Your task to perform on an android device: toggle pop-ups in chrome Image 0: 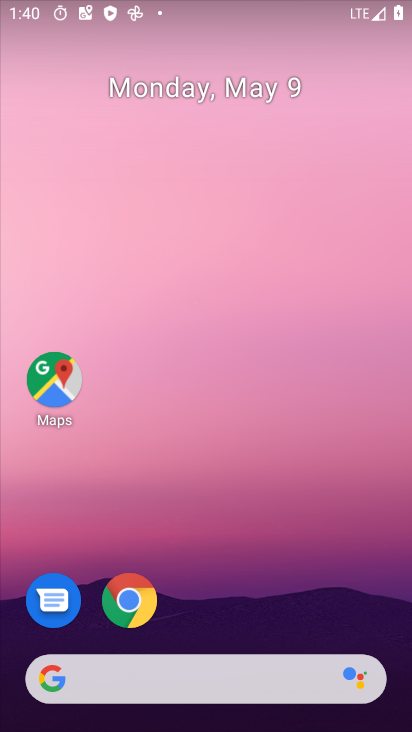
Step 0: drag from (243, 617) to (280, 226)
Your task to perform on an android device: toggle pop-ups in chrome Image 1: 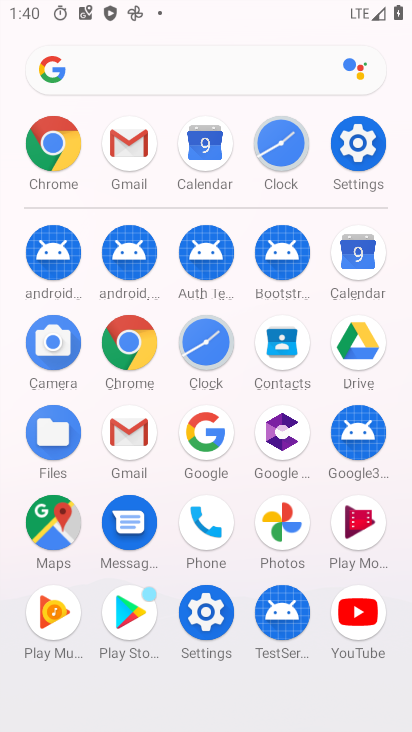
Step 1: click (149, 349)
Your task to perform on an android device: toggle pop-ups in chrome Image 2: 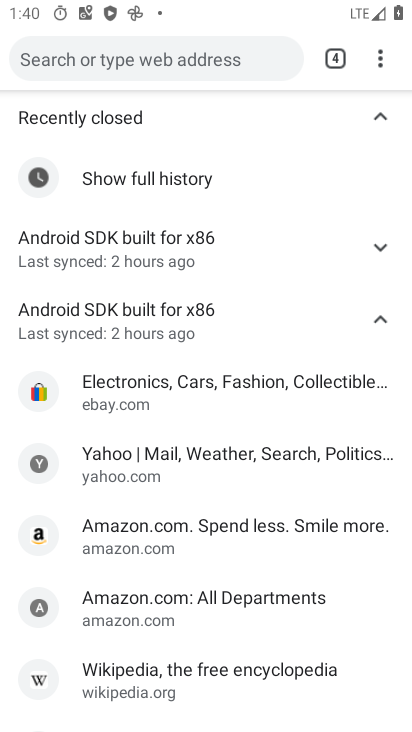
Step 2: click (385, 72)
Your task to perform on an android device: toggle pop-ups in chrome Image 3: 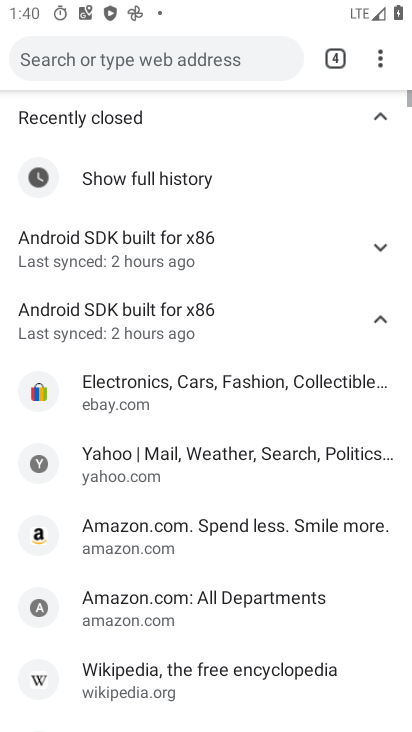
Step 3: click (376, 73)
Your task to perform on an android device: toggle pop-ups in chrome Image 4: 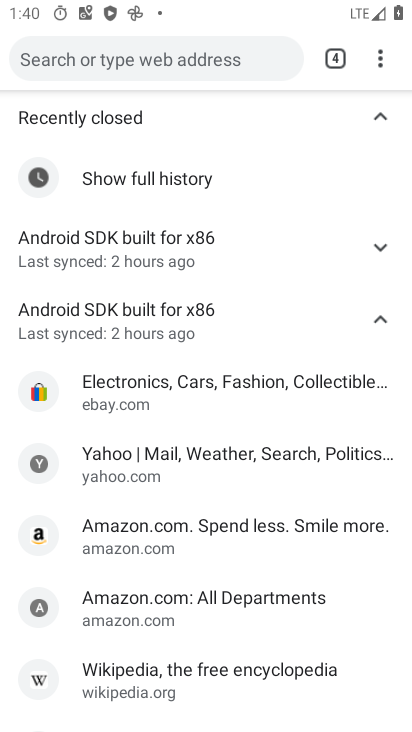
Step 4: click (378, 69)
Your task to perform on an android device: toggle pop-ups in chrome Image 5: 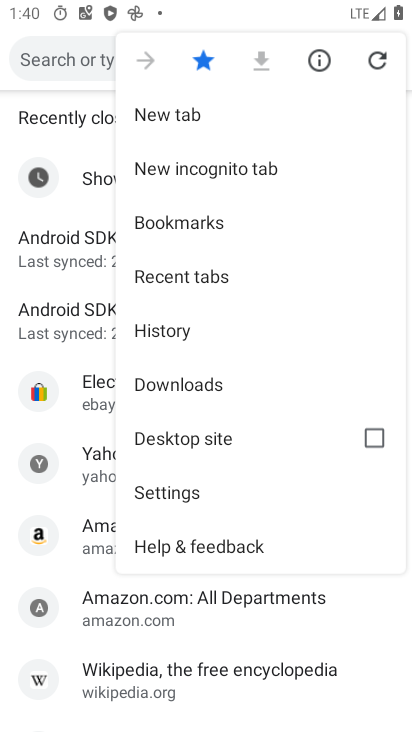
Step 5: click (239, 482)
Your task to perform on an android device: toggle pop-ups in chrome Image 6: 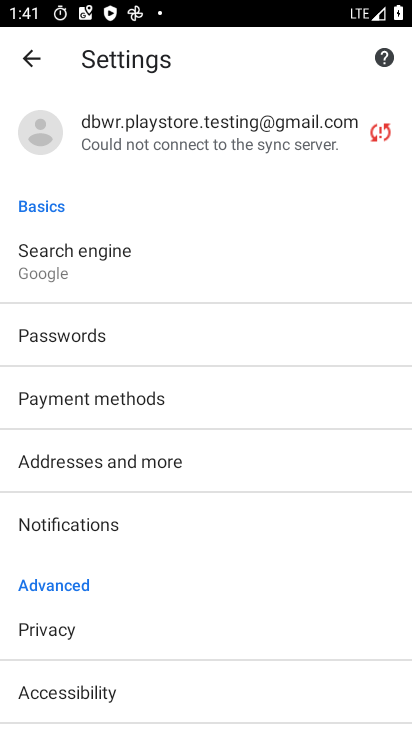
Step 6: drag from (181, 646) to (223, 405)
Your task to perform on an android device: toggle pop-ups in chrome Image 7: 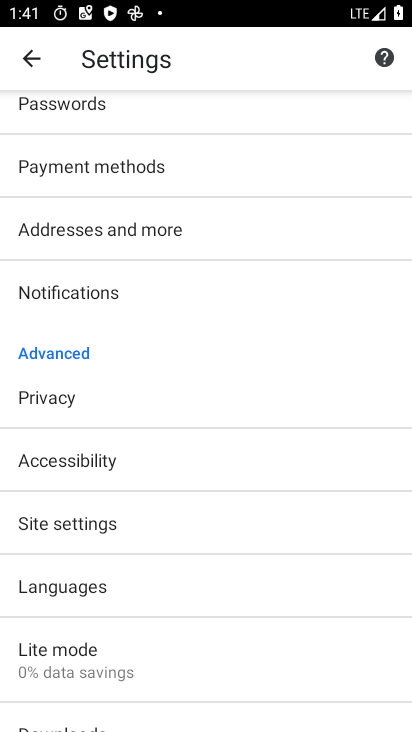
Step 7: click (148, 513)
Your task to perform on an android device: toggle pop-ups in chrome Image 8: 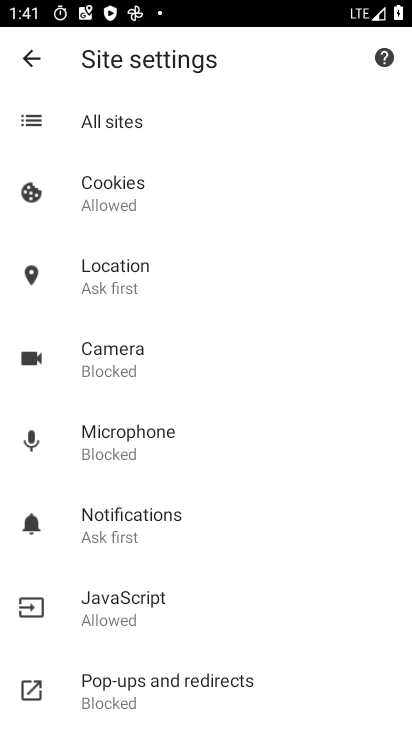
Step 8: click (160, 682)
Your task to perform on an android device: toggle pop-ups in chrome Image 9: 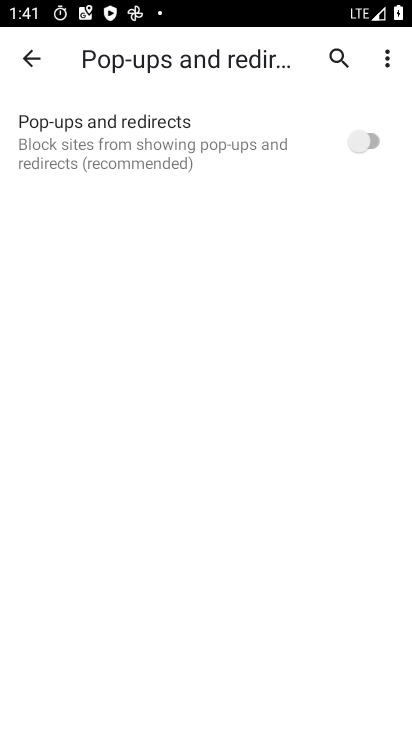
Step 9: click (347, 148)
Your task to perform on an android device: toggle pop-ups in chrome Image 10: 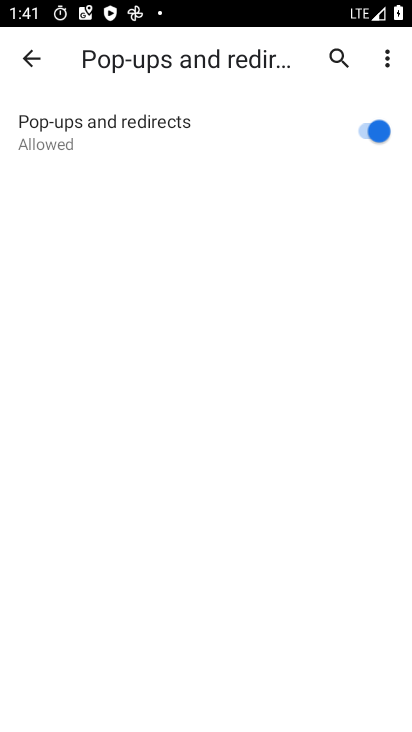
Step 10: task complete